Your task to perform on an android device: change alarm snooze length Image 0: 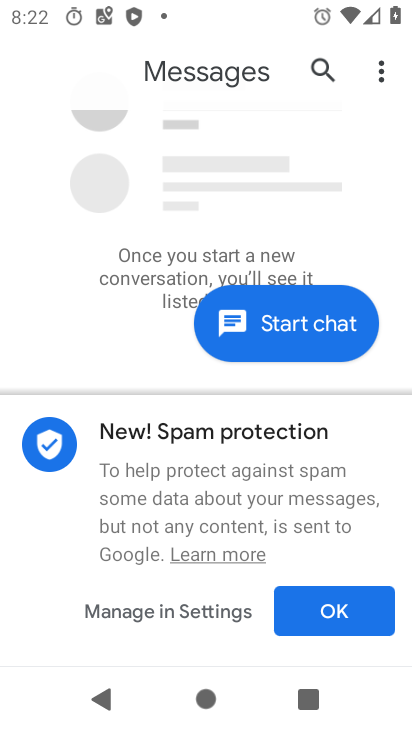
Step 0: press home button
Your task to perform on an android device: change alarm snooze length Image 1: 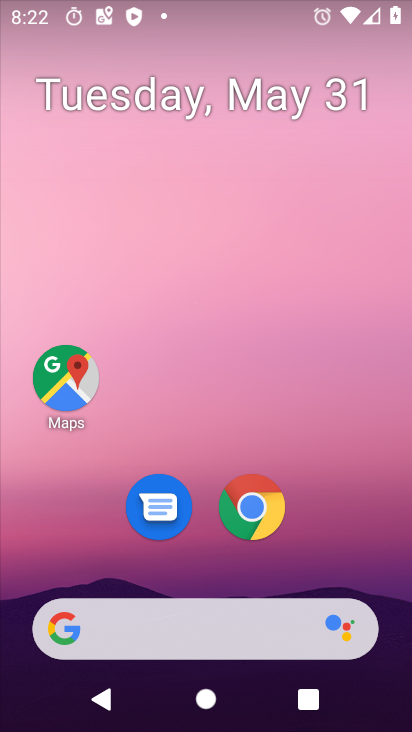
Step 1: drag from (375, 589) to (365, 21)
Your task to perform on an android device: change alarm snooze length Image 2: 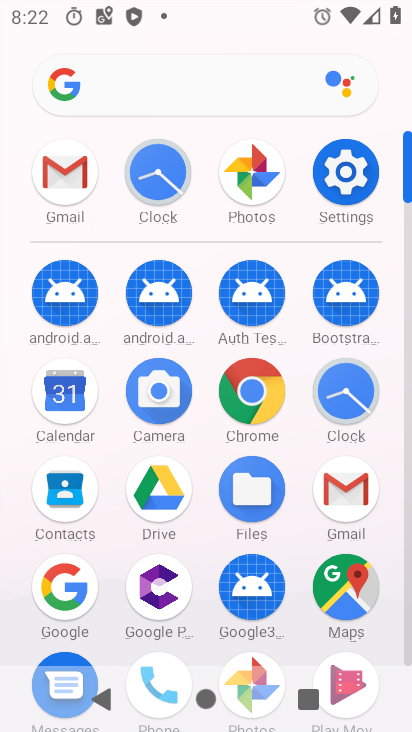
Step 2: click (156, 183)
Your task to perform on an android device: change alarm snooze length Image 3: 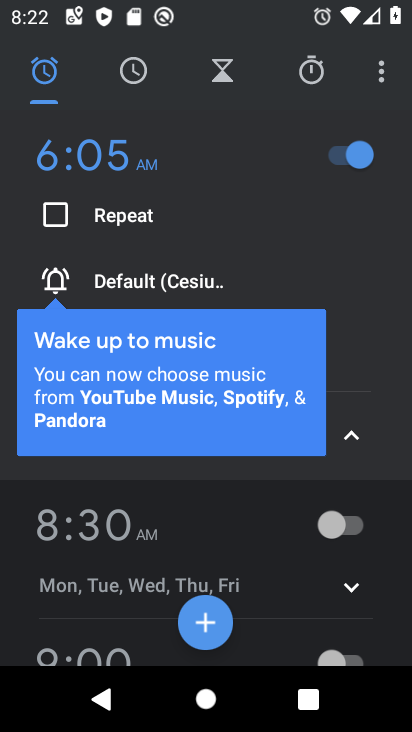
Step 3: click (381, 73)
Your task to perform on an android device: change alarm snooze length Image 4: 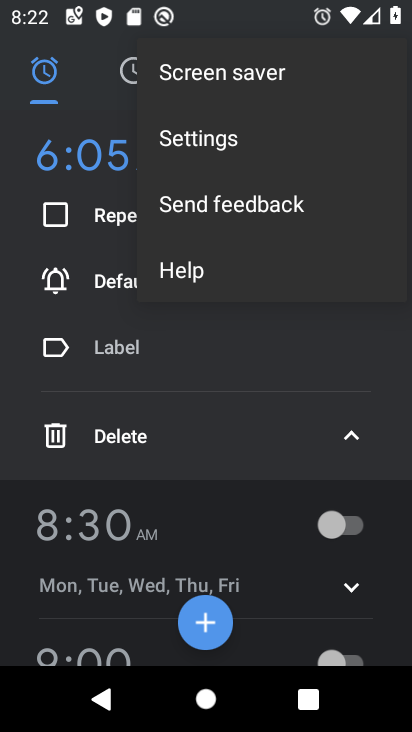
Step 4: click (213, 144)
Your task to perform on an android device: change alarm snooze length Image 5: 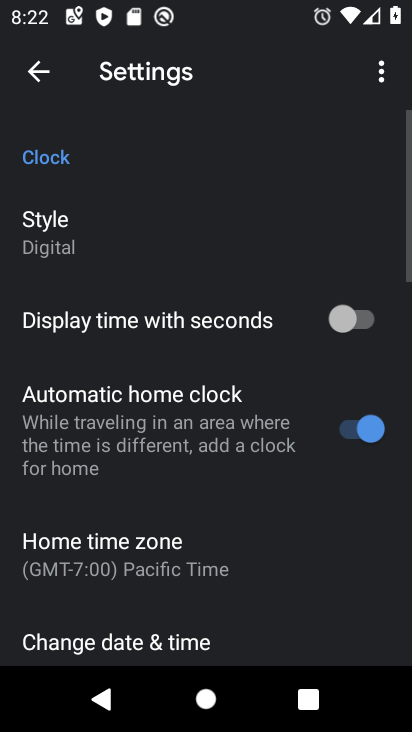
Step 5: drag from (161, 532) to (173, 106)
Your task to perform on an android device: change alarm snooze length Image 6: 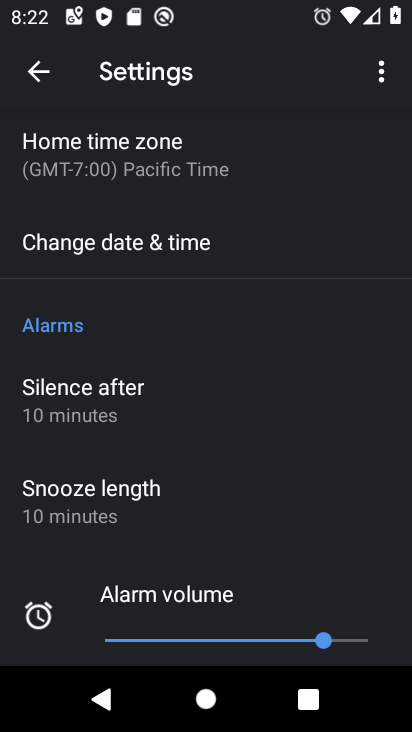
Step 6: click (74, 506)
Your task to perform on an android device: change alarm snooze length Image 7: 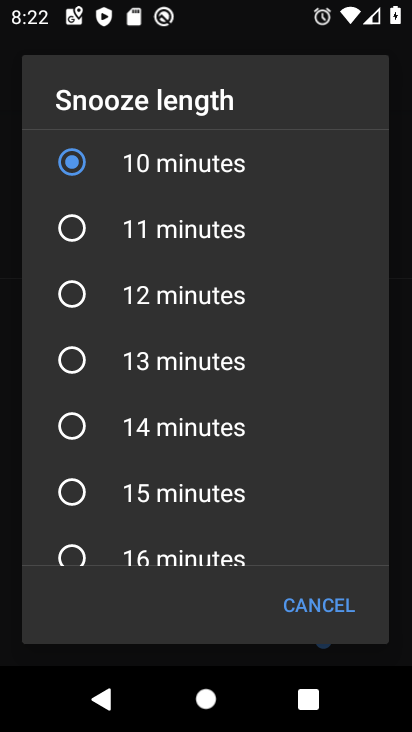
Step 7: click (71, 354)
Your task to perform on an android device: change alarm snooze length Image 8: 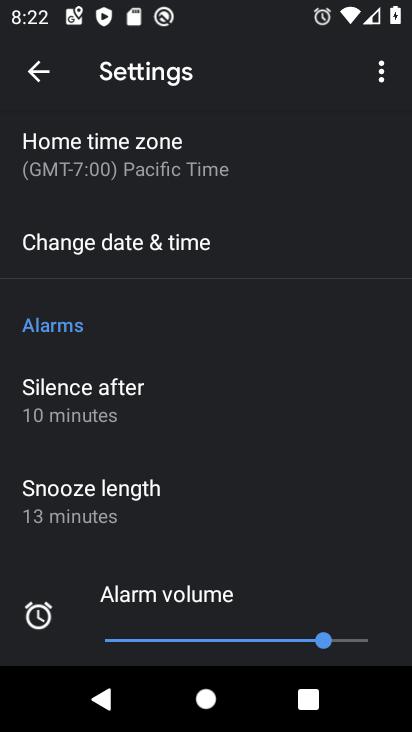
Step 8: task complete